Your task to perform on an android device: Open settings on Google Maps Image 0: 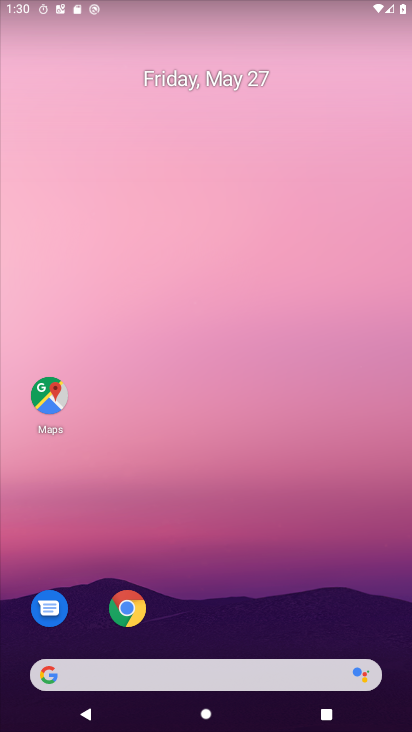
Step 0: click (34, 393)
Your task to perform on an android device: Open settings on Google Maps Image 1: 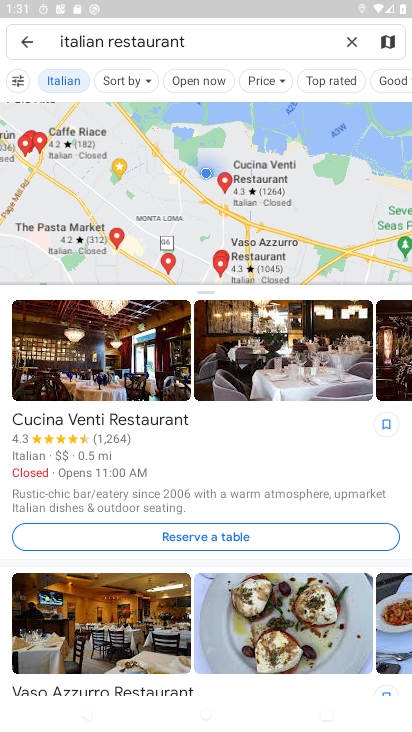
Step 1: click (28, 42)
Your task to perform on an android device: Open settings on Google Maps Image 2: 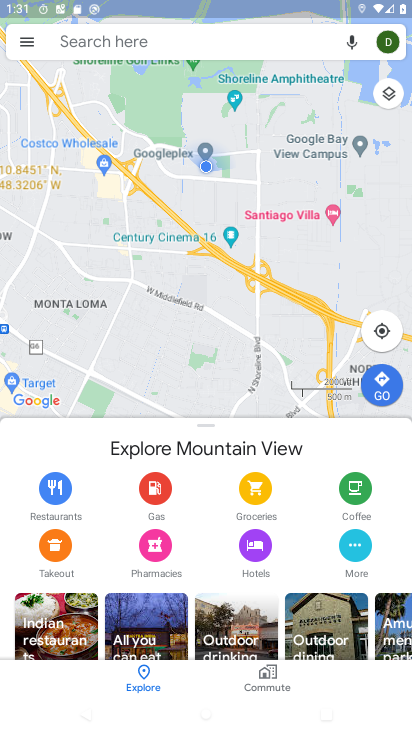
Step 2: click (27, 42)
Your task to perform on an android device: Open settings on Google Maps Image 3: 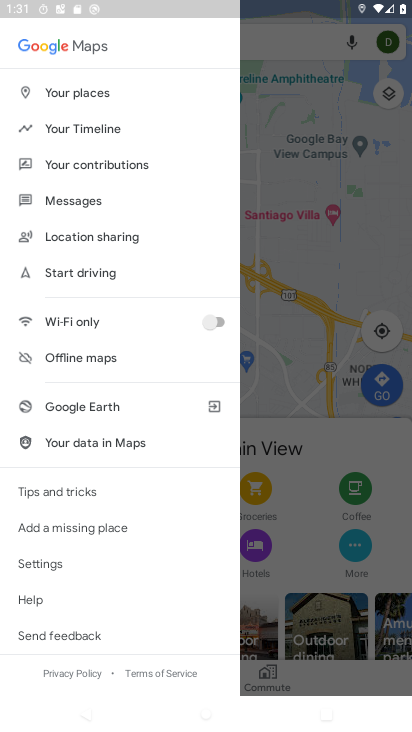
Step 3: click (31, 564)
Your task to perform on an android device: Open settings on Google Maps Image 4: 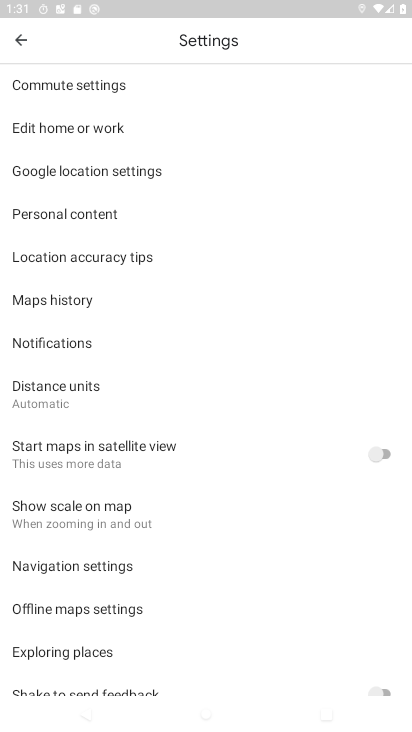
Step 4: task complete